Your task to perform on an android device: check google app version Image 0: 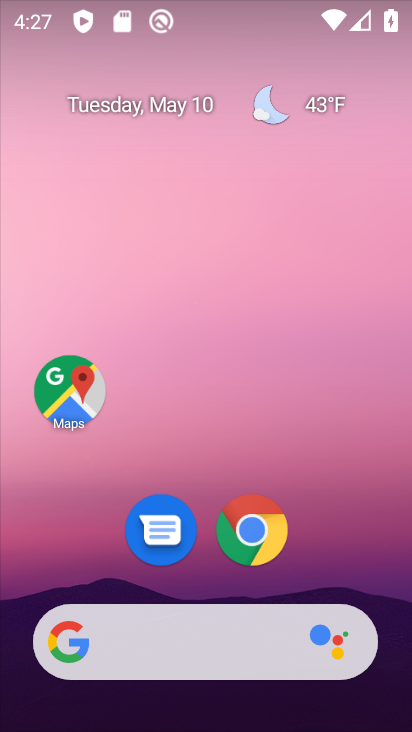
Step 0: drag from (310, 584) to (317, 125)
Your task to perform on an android device: check google app version Image 1: 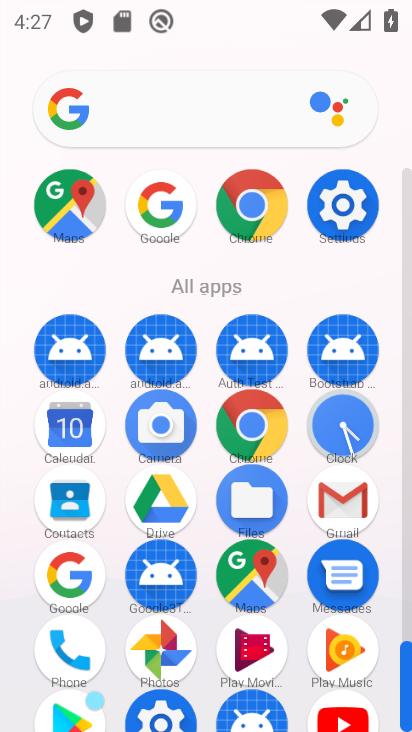
Step 1: click (157, 203)
Your task to perform on an android device: check google app version Image 2: 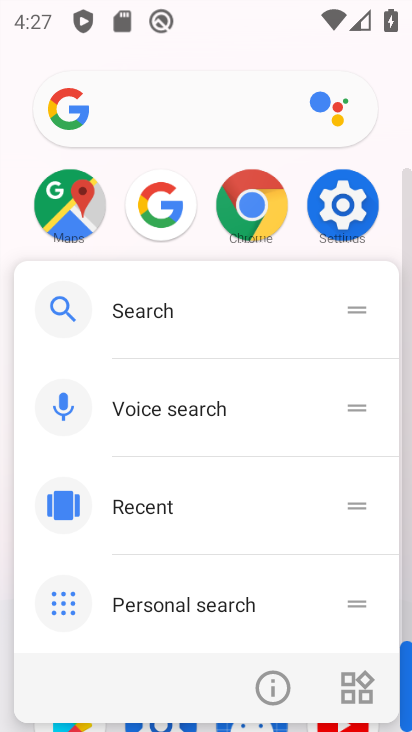
Step 2: click (272, 678)
Your task to perform on an android device: check google app version Image 3: 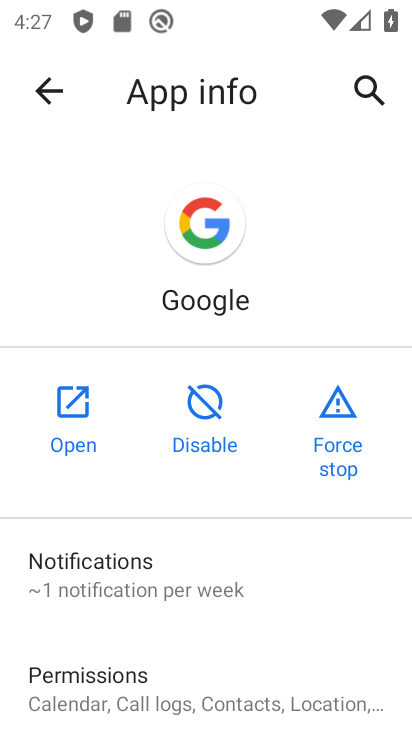
Step 3: drag from (265, 625) to (317, 182)
Your task to perform on an android device: check google app version Image 4: 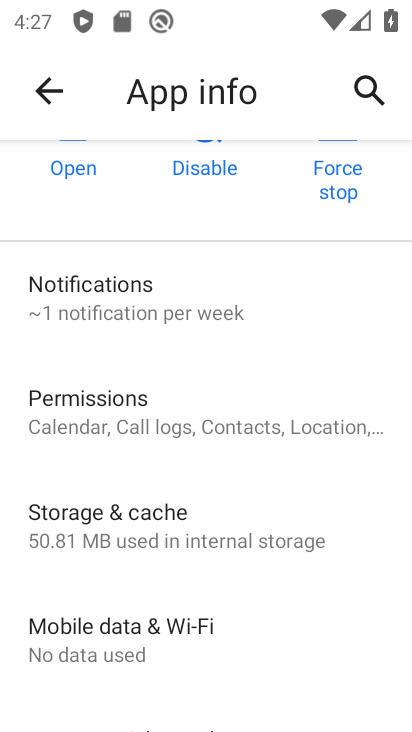
Step 4: drag from (241, 632) to (318, 226)
Your task to perform on an android device: check google app version Image 5: 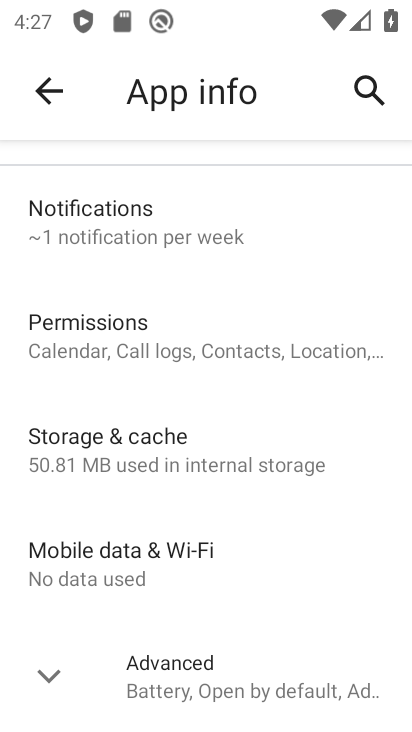
Step 5: click (225, 664)
Your task to perform on an android device: check google app version Image 6: 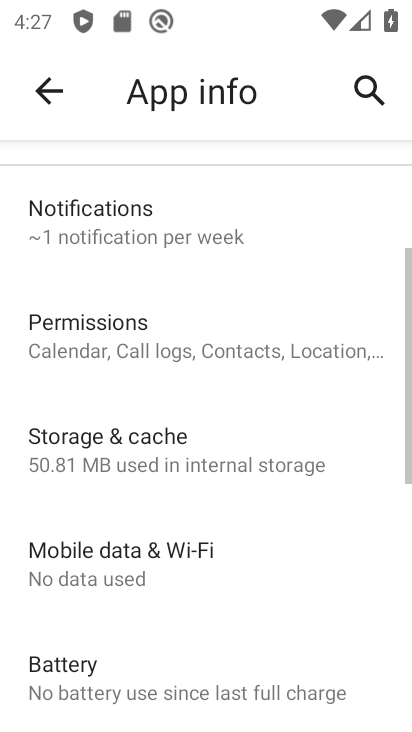
Step 6: task complete